Your task to perform on an android device: turn off sleep mode Image 0: 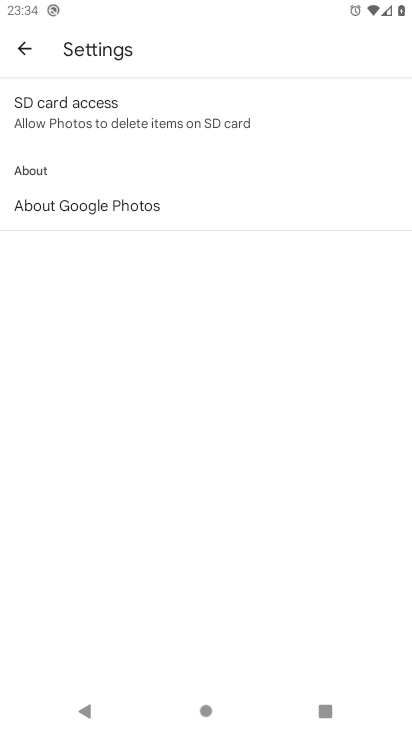
Step 0: press home button
Your task to perform on an android device: turn off sleep mode Image 1: 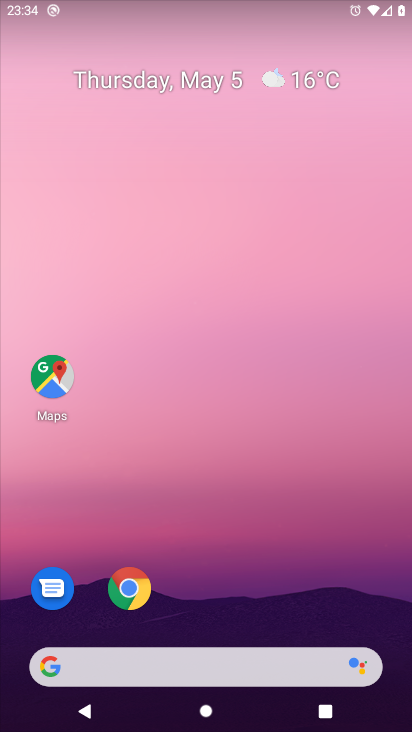
Step 1: drag from (269, 625) to (248, 258)
Your task to perform on an android device: turn off sleep mode Image 2: 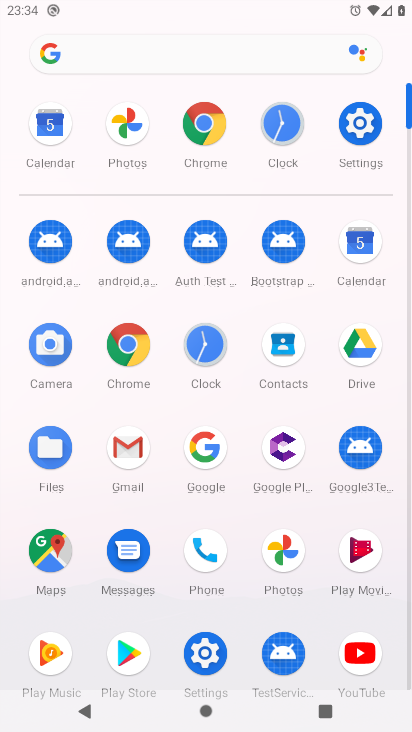
Step 2: click (360, 141)
Your task to perform on an android device: turn off sleep mode Image 3: 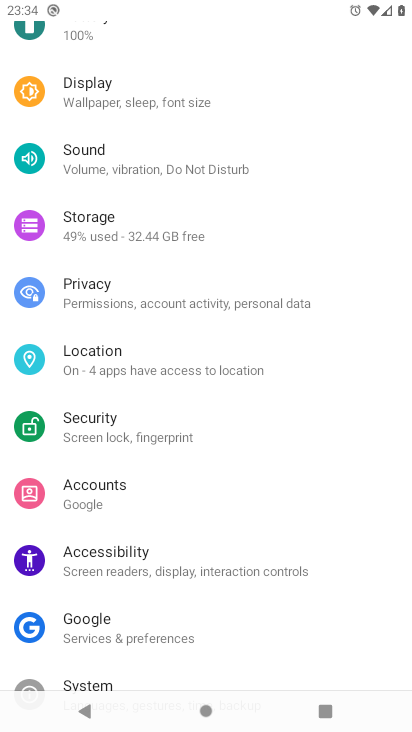
Step 3: drag from (256, 162) to (184, 516)
Your task to perform on an android device: turn off sleep mode Image 4: 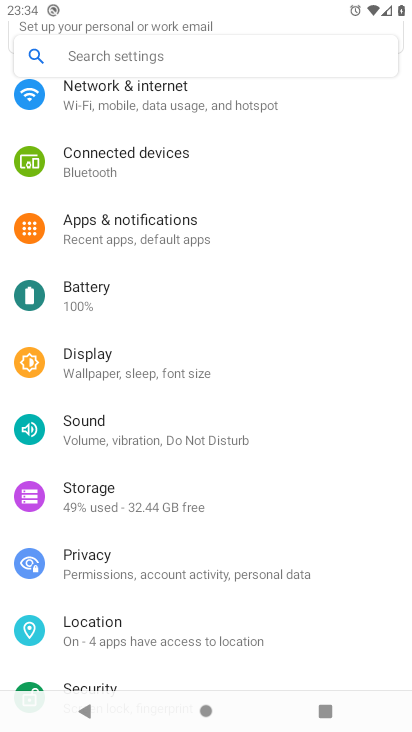
Step 4: click (147, 369)
Your task to perform on an android device: turn off sleep mode Image 5: 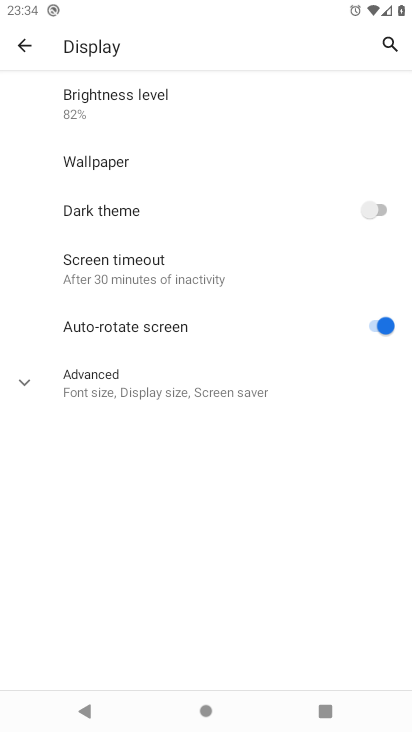
Step 5: click (159, 377)
Your task to perform on an android device: turn off sleep mode Image 6: 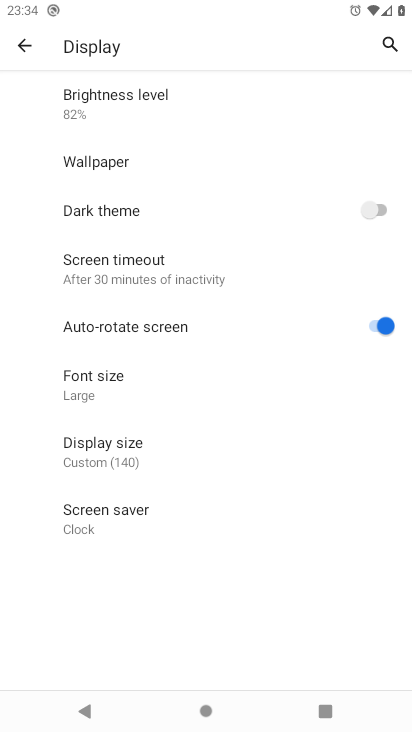
Step 6: task complete